Your task to perform on an android device: toggle pop-ups in chrome Image 0: 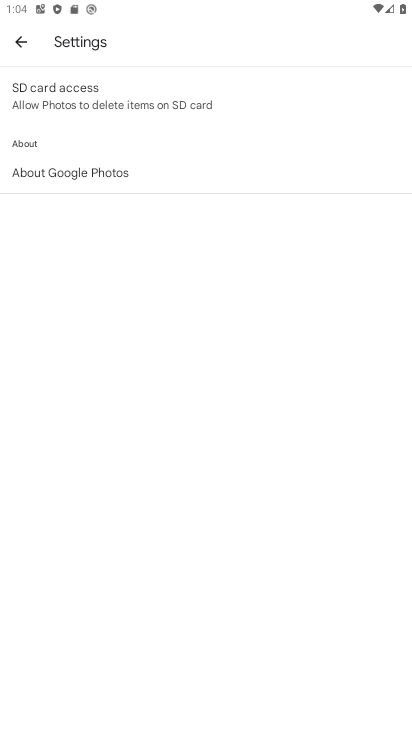
Step 0: press home button
Your task to perform on an android device: toggle pop-ups in chrome Image 1: 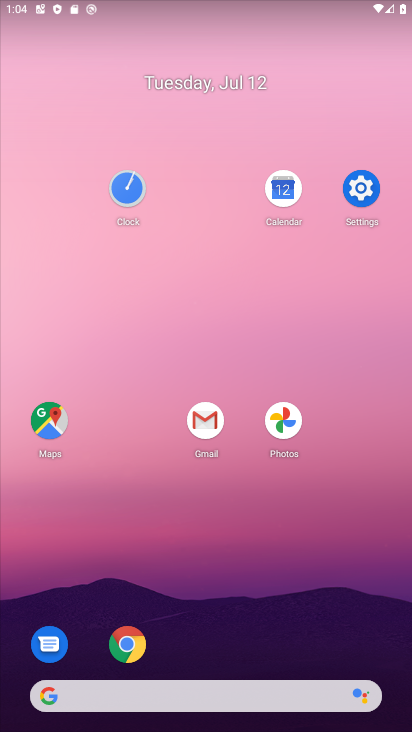
Step 1: click (112, 646)
Your task to perform on an android device: toggle pop-ups in chrome Image 2: 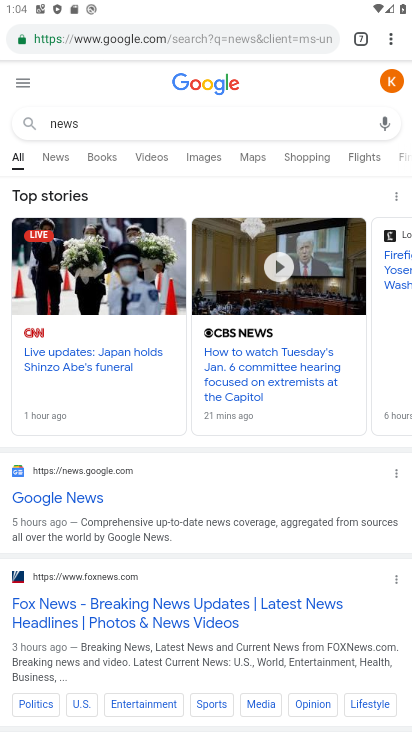
Step 2: click (388, 45)
Your task to perform on an android device: toggle pop-ups in chrome Image 3: 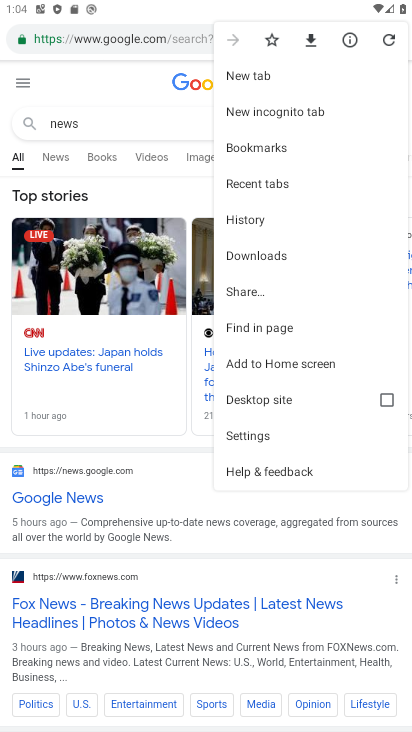
Step 3: click (284, 436)
Your task to perform on an android device: toggle pop-ups in chrome Image 4: 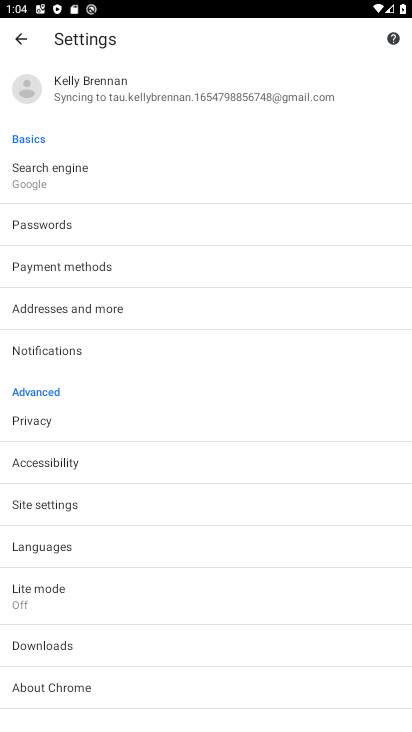
Step 4: click (103, 509)
Your task to perform on an android device: toggle pop-ups in chrome Image 5: 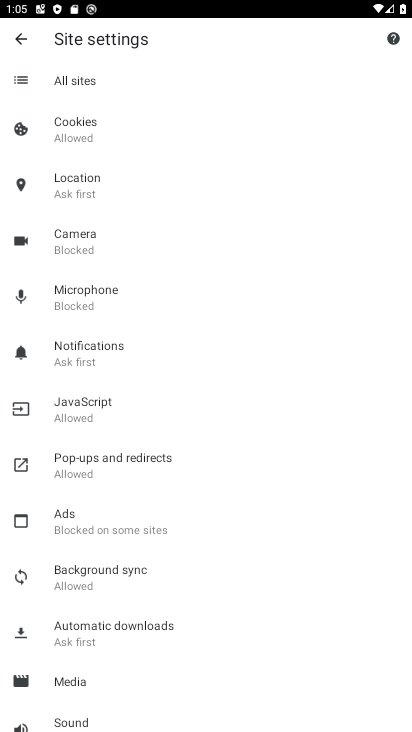
Step 5: click (157, 479)
Your task to perform on an android device: toggle pop-ups in chrome Image 6: 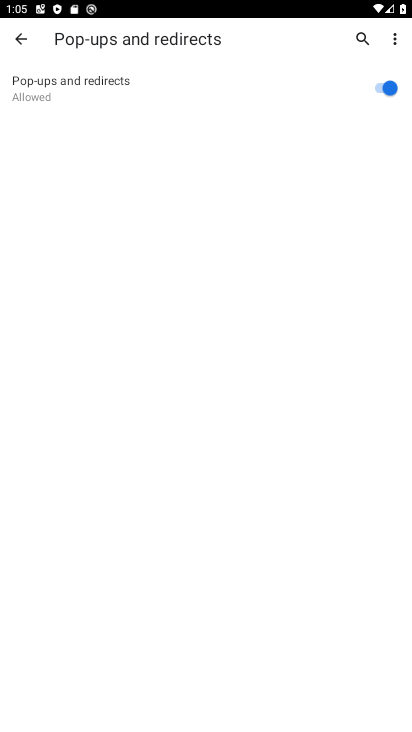
Step 6: click (384, 80)
Your task to perform on an android device: toggle pop-ups in chrome Image 7: 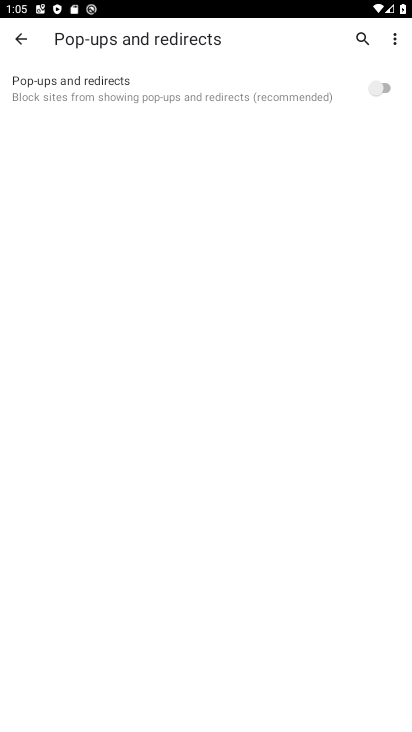
Step 7: task complete